Your task to perform on an android device: Go to notification settings Image 0: 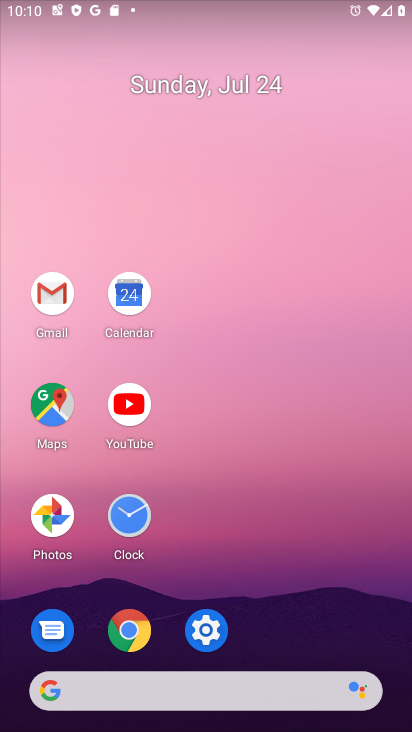
Step 0: click (206, 629)
Your task to perform on an android device: Go to notification settings Image 1: 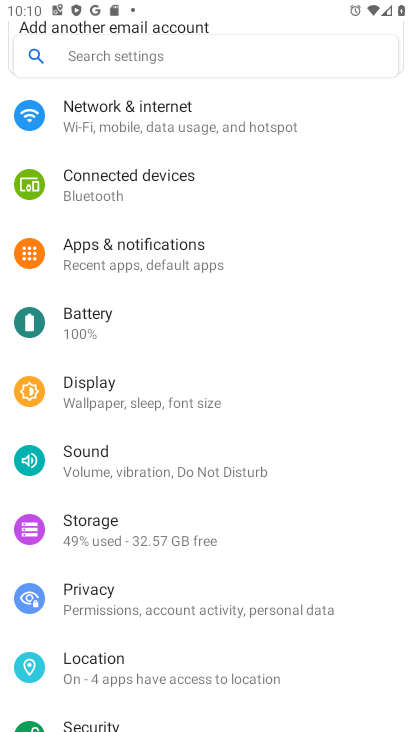
Step 1: click (129, 244)
Your task to perform on an android device: Go to notification settings Image 2: 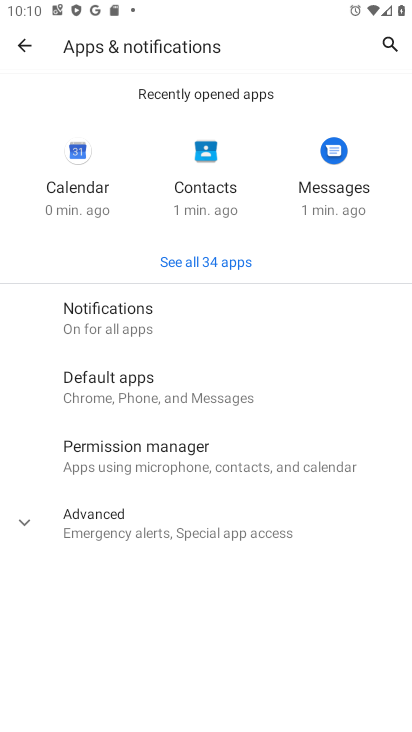
Step 2: click (104, 307)
Your task to perform on an android device: Go to notification settings Image 3: 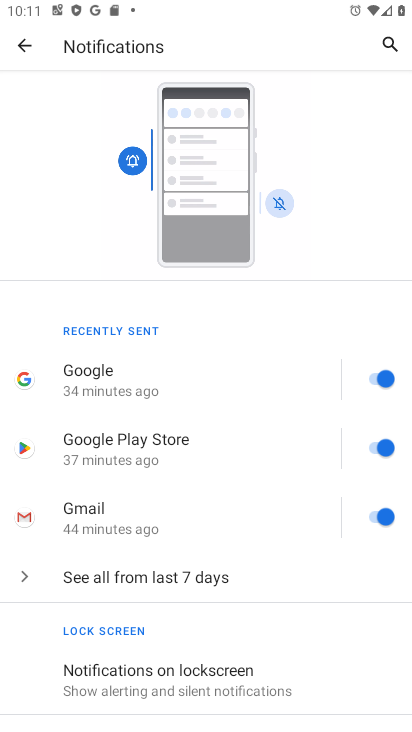
Step 3: task complete